Your task to perform on an android device: Turn off the flashlight Image 0: 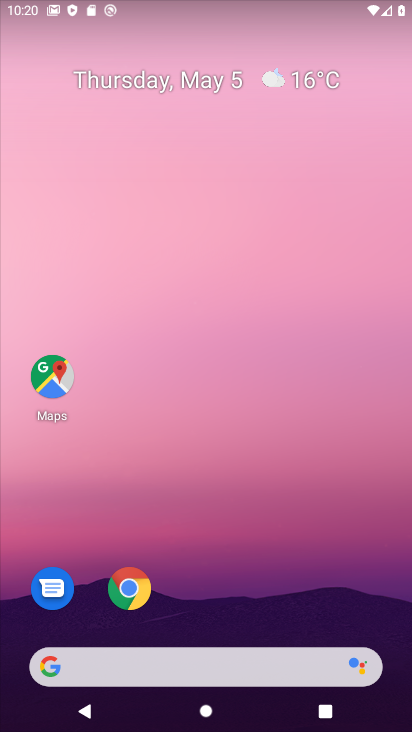
Step 0: drag from (343, 607) to (232, 2)
Your task to perform on an android device: Turn off the flashlight Image 1: 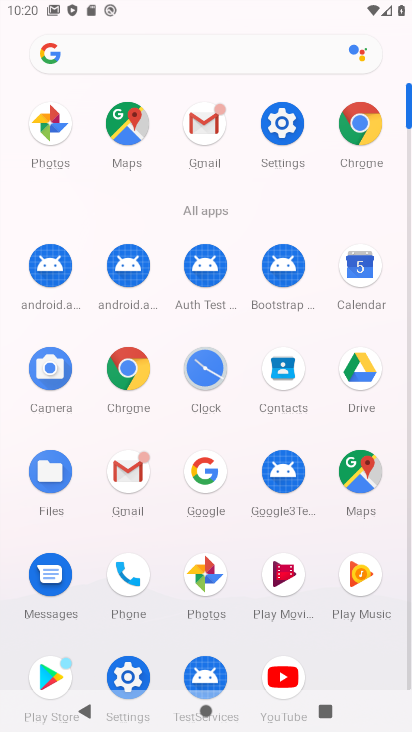
Step 1: task complete